Your task to perform on an android device: check out phone information Image 0: 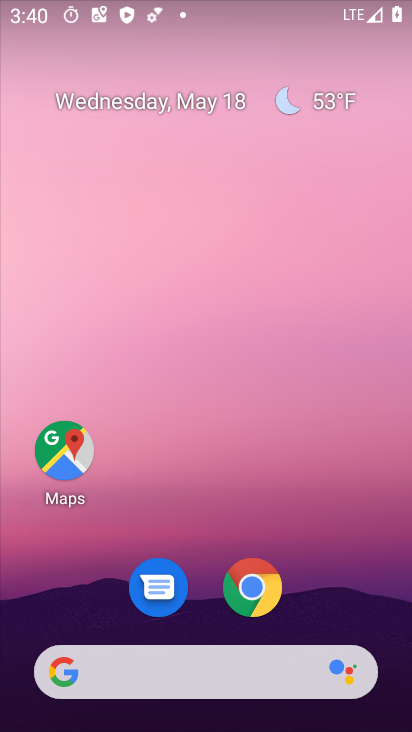
Step 0: drag from (271, 643) to (284, 214)
Your task to perform on an android device: check out phone information Image 1: 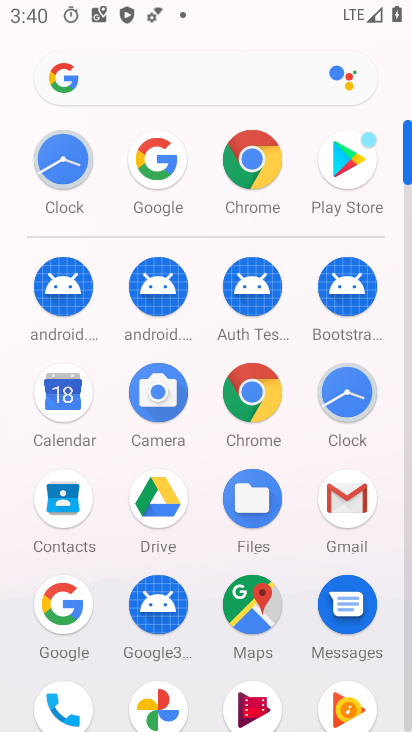
Step 1: drag from (126, 520) to (190, 104)
Your task to perform on an android device: check out phone information Image 2: 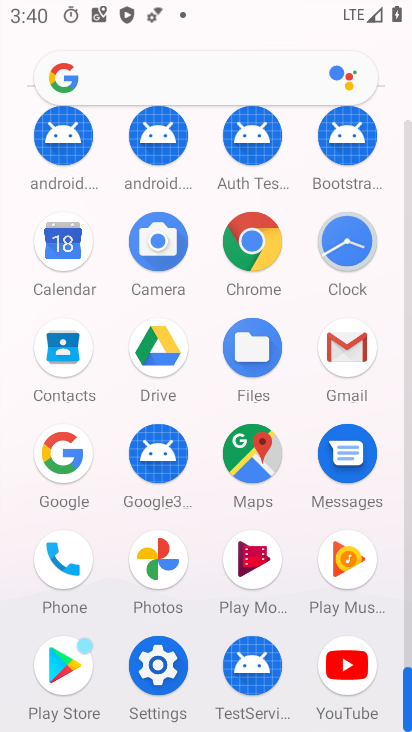
Step 2: click (164, 678)
Your task to perform on an android device: check out phone information Image 3: 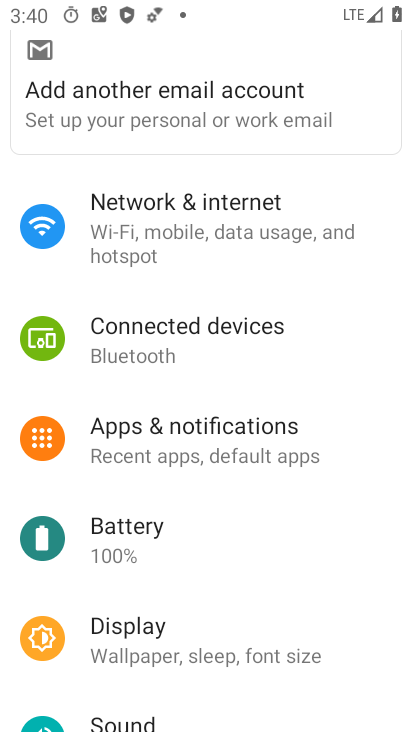
Step 3: drag from (252, 525) to (247, 60)
Your task to perform on an android device: check out phone information Image 4: 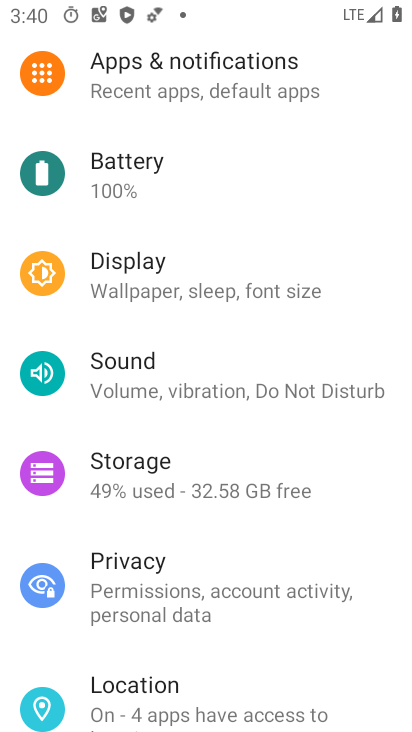
Step 4: drag from (194, 660) to (195, 135)
Your task to perform on an android device: check out phone information Image 5: 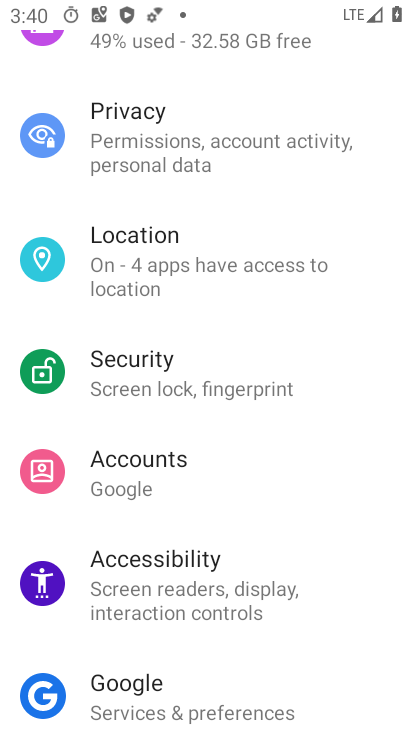
Step 5: drag from (197, 409) to (212, 26)
Your task to perform on an android device: check out phone information Image 6: 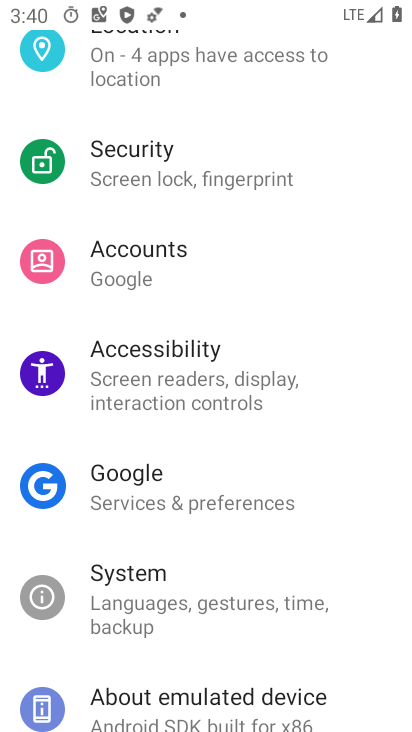
Step 6: drag from (215, 539) to (212, 91)
Your task to perform on an android device: check out phone information Image 7: 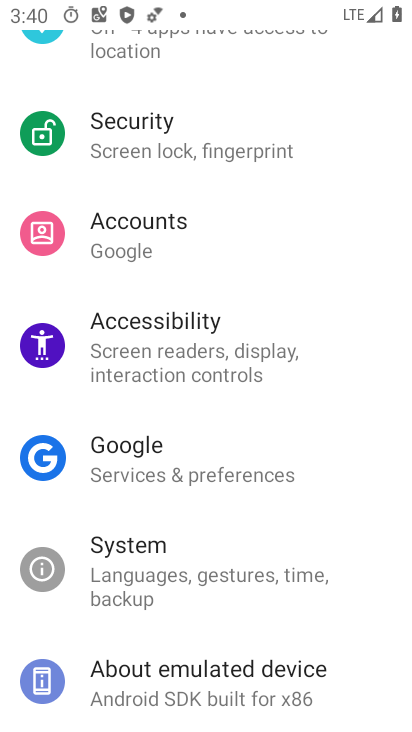
Step 7: click (236, 686)
Your task to perform on an android device: check out phone information Image 8: 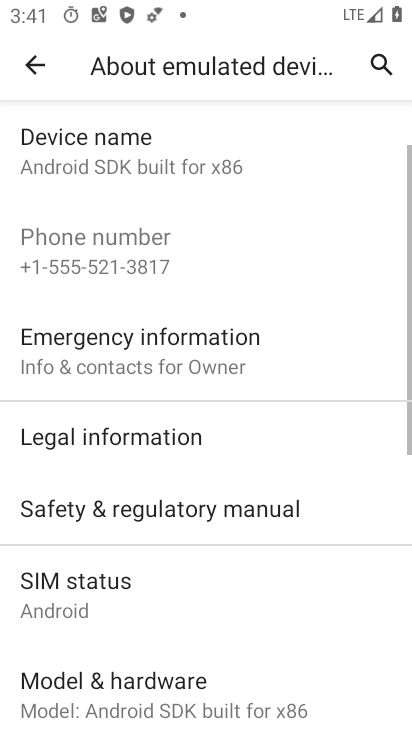
Step 8: task complete